Your task to perform on an android device: turn on airplane mode Image 0: 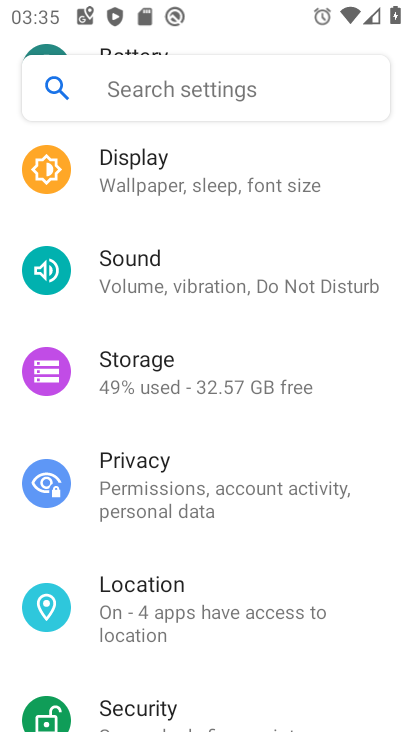
Step 0: drag from (234, 196) to (205, 603)
Your task to perform on an android device: turn on airplane mode Image 1: 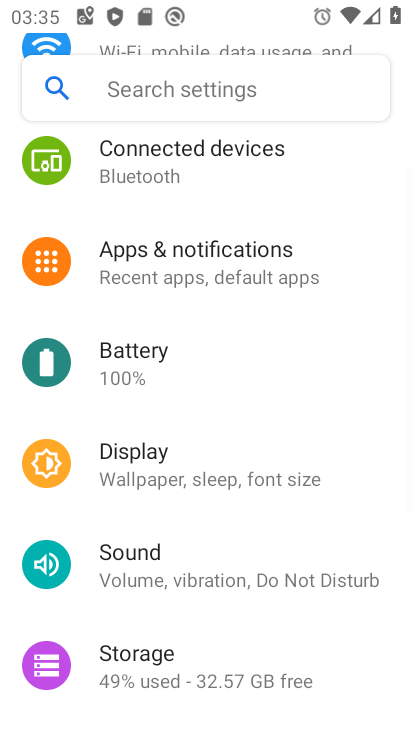
Step 1: drag from (260, 203) to (242, 644)
Your task to perform on an android device: turn on airplane mode Image 2: 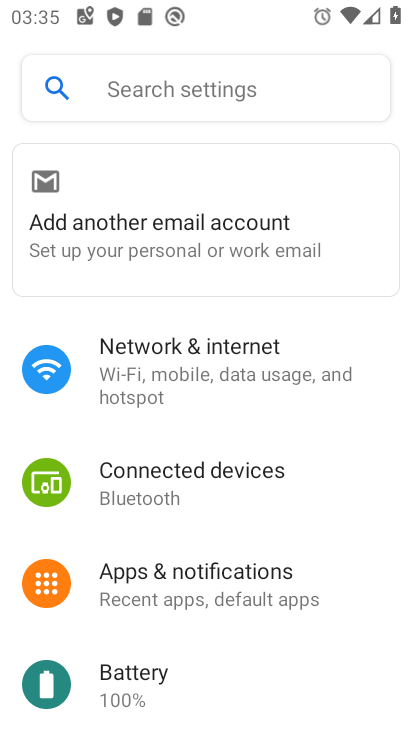
Step 2: click (153, 350)
Your task to perform on an android device: turn on airplane mode Image 3: 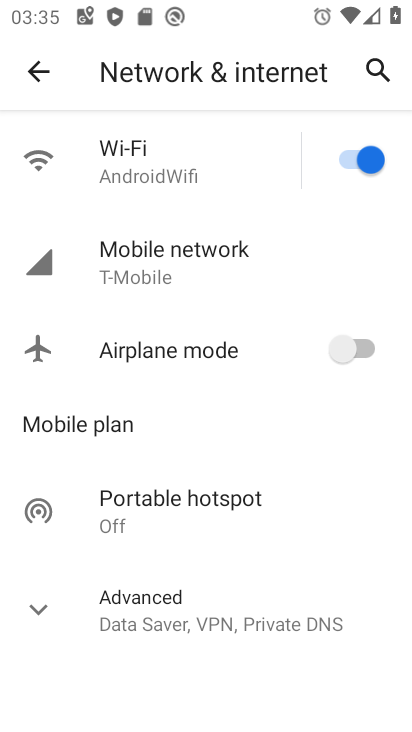
Step 3: click (358, 345)
Your task to perform on an android device: turn on airplane mode Image 4: 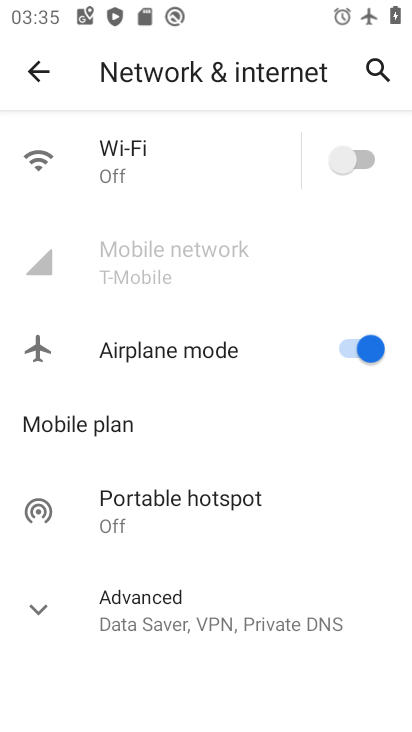
Step 4: task complete